Your task to perform on an android device: Show me productivity apps on the Play Store Image 0: 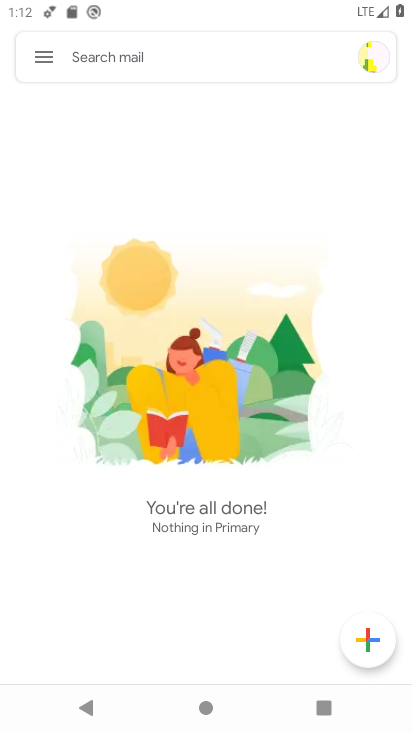
Step 0: press home button
Your task to perform on an android device: Show me productivity apps on the Play Store Image 1: 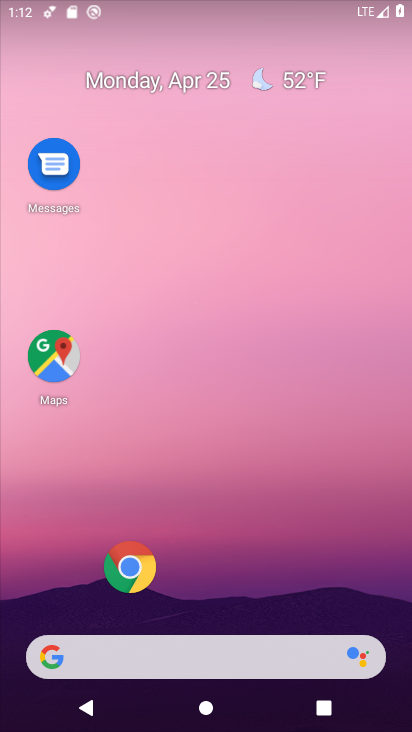
Step 1: drag from (201, 573) to (259, 119)
Your task to perform on an android device: Show me productivity apps on the Play Store Image 2: 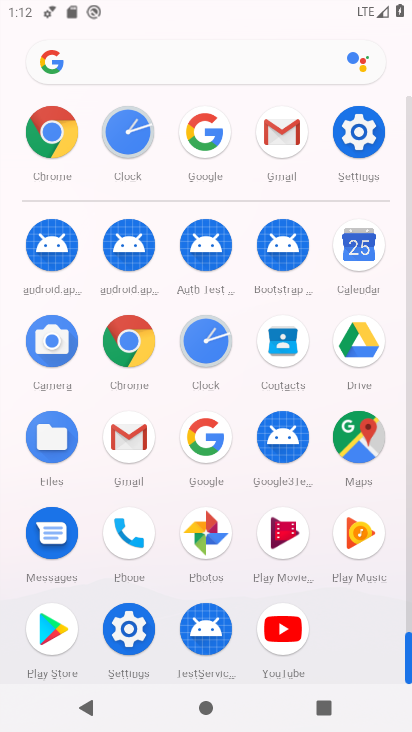
Step 2: click (66, 618)
Your task to perform on an android device: Show me productivity apps on the Play Store Image 3: 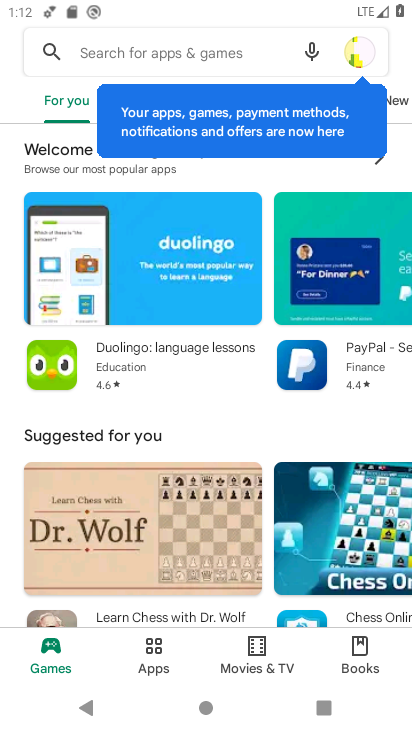
Step 3: click (140, 51)
Your task to perform on an android device: Show me productivity apps on the Play Store Image 4: 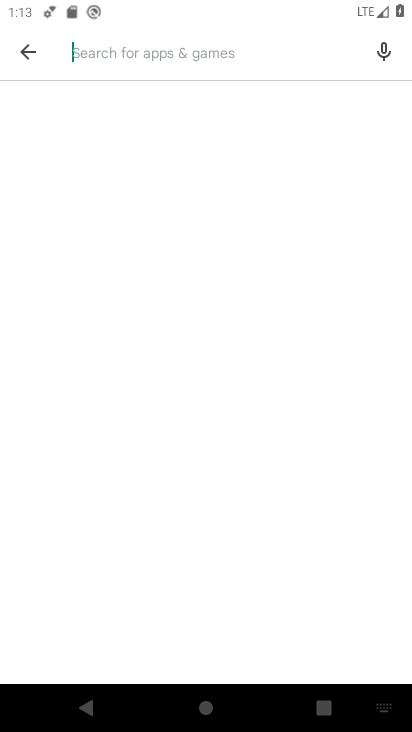
Step 4: type "productivity apps"
Your task to perform on an android device: Show me productivity apps on the Play Store Image 5: 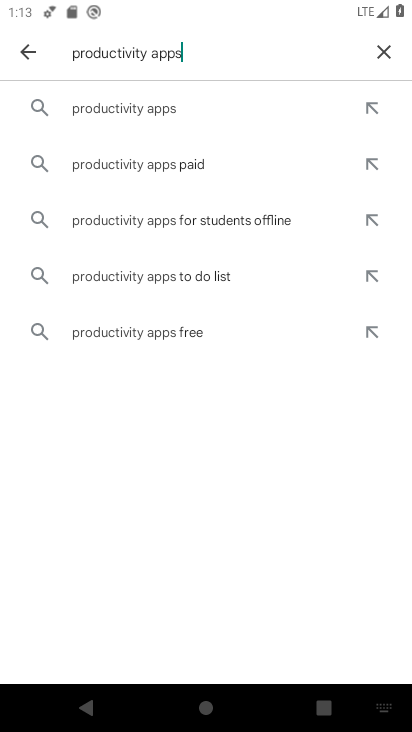
Step 5: click (270, 107)
Your task to perform on an android device: Show me productivity apps on the Play Store Image 6: 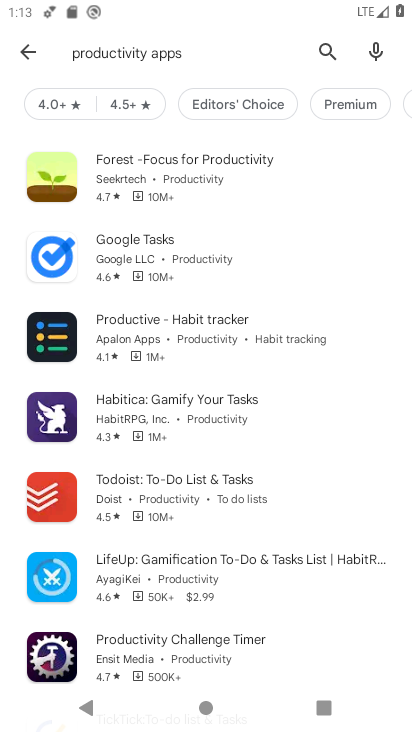
Step 6: task complete